Your task to perform on an android device: Open location settings Image 0: 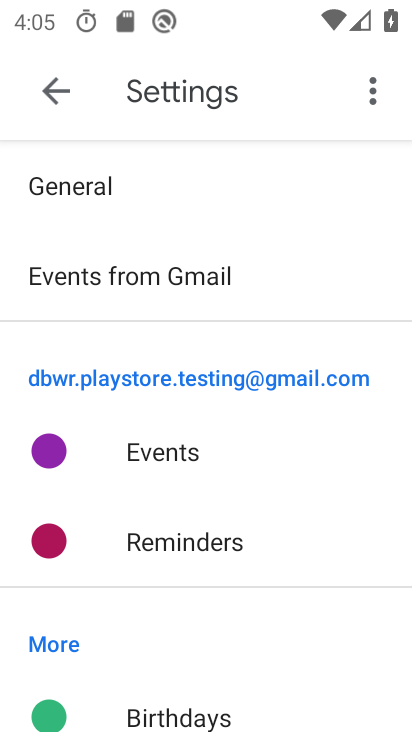
Step 0: press back button
Your task to perform on an android device: Open location settings Image 1: 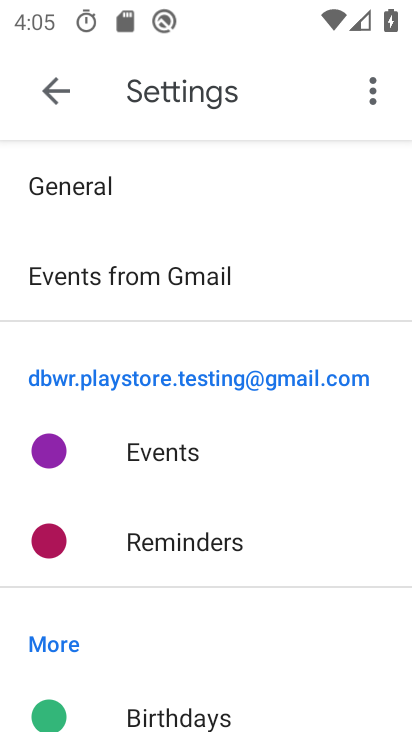
Step 1: click (40, 85)
Your task to perform on an android device: Open location settings Image 2: 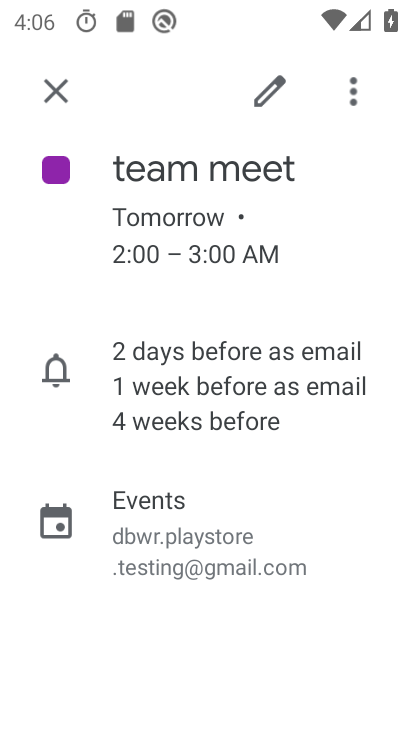
Step 2: click (54, 84)
Your task to perform on an android device: Open location settings Image 3: 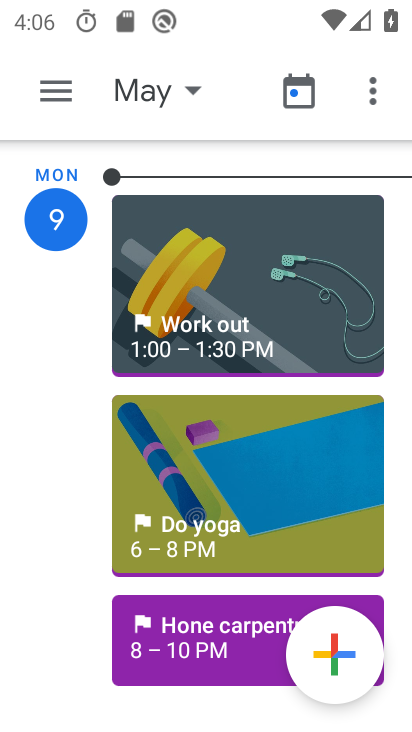
Step 3: press back button
Your task to perform on an android device: Open location settings Image 4: 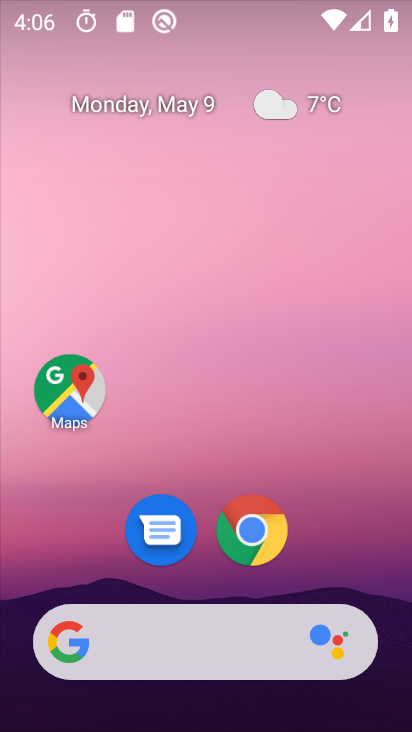
Step 4: drag from (275, 505) to (333, 40)
Your task to perform on an android device: Open location settings Image 5: 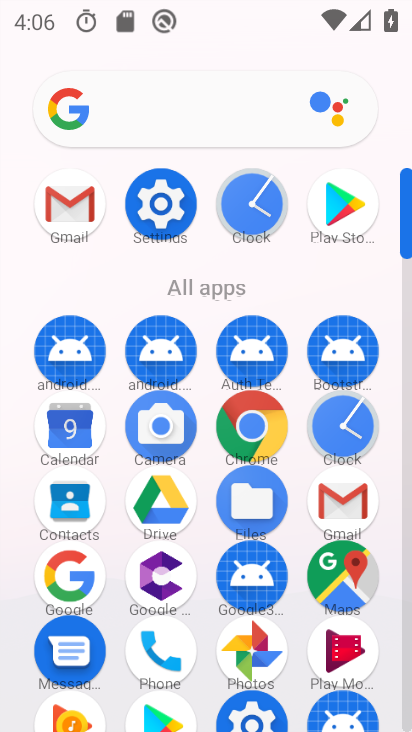
Step 5: click (164, 185)
Your task to perform on an android device: Open location settings Image 6: 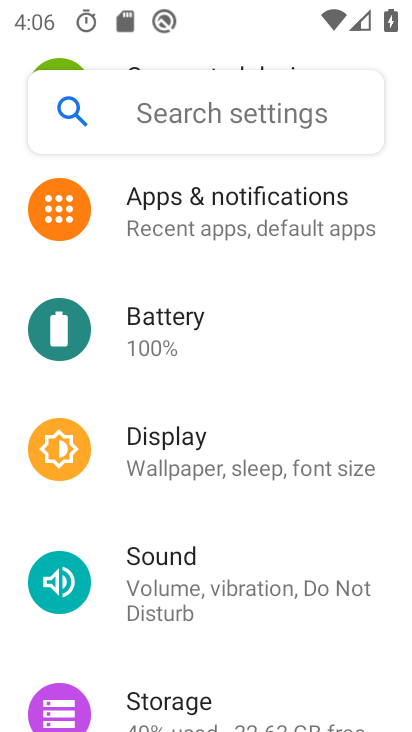
Step 6: drag from (187, 624) to (323, 52)
Your task to perform on an android device: Open location settings Image 7: 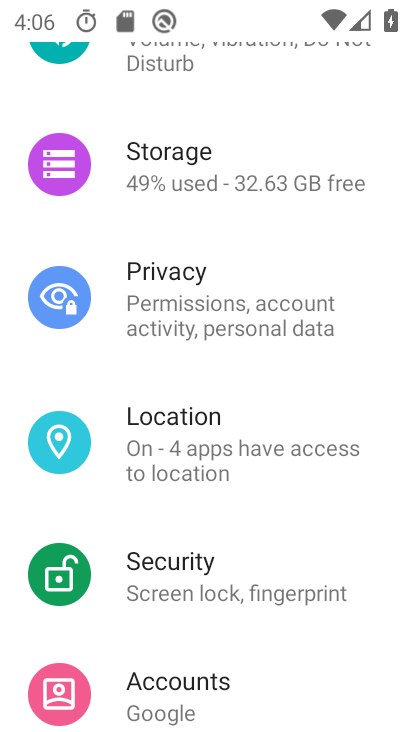
Step 7: click (212, 434)
Your task to perform on an android device: Open location settings Image 8: 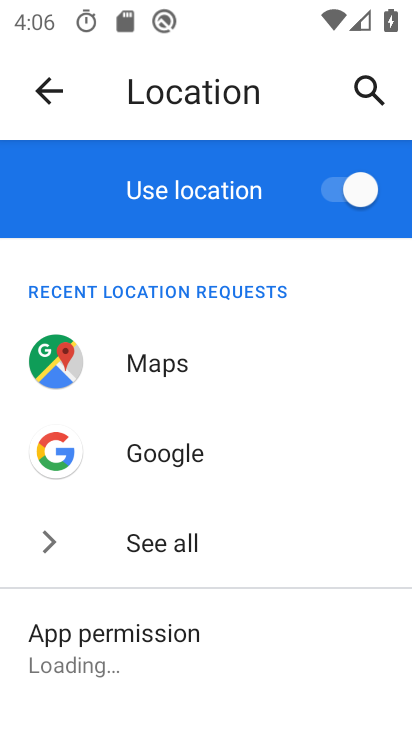
Step 8: task complete